Your task to perform on an android device: Go to display settings Image 0: 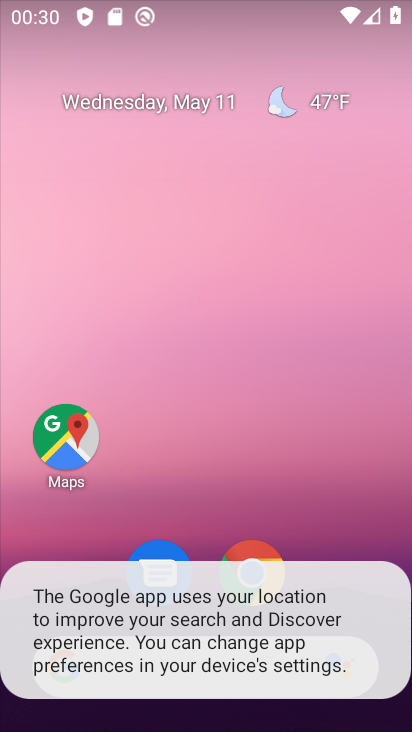
Step 0: press home button
Your task to perform on an android device: Go to display settings Image 1: 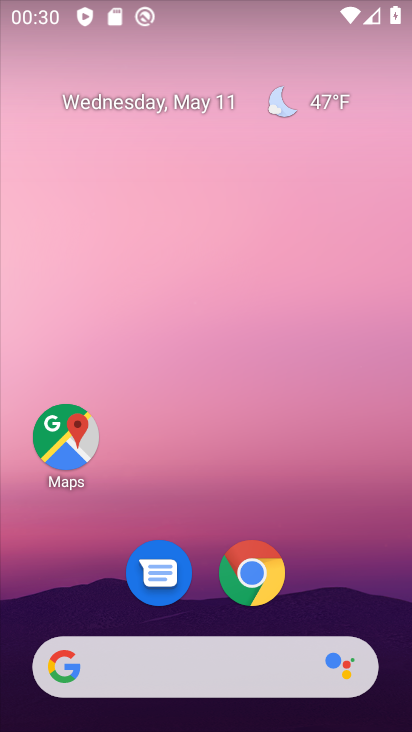
Step 1: drag from (359, 614) to (408, 167)
Your task to perform on an android device: Go to display settings Image 2: 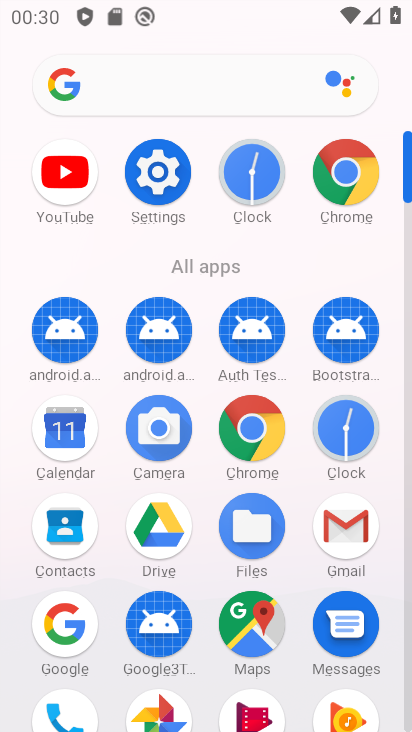
Step 2: click (168, 174)
Your task to perform on an android device: Go to display settings Image 3: 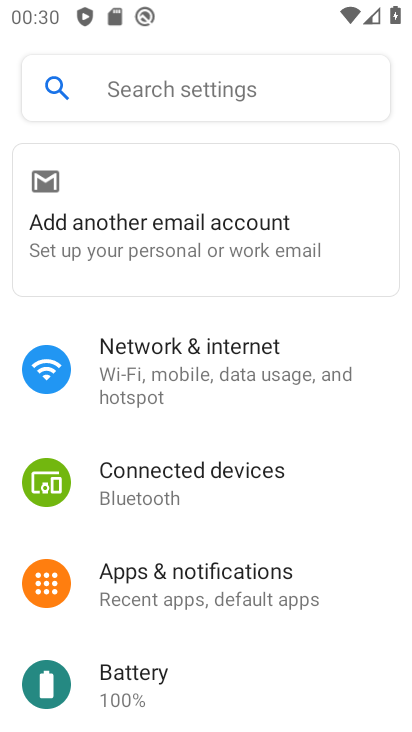
Step 3: drag from (140, 662) to (140, 377)
Your task to perform on an android device: Go to display settings Image 4: 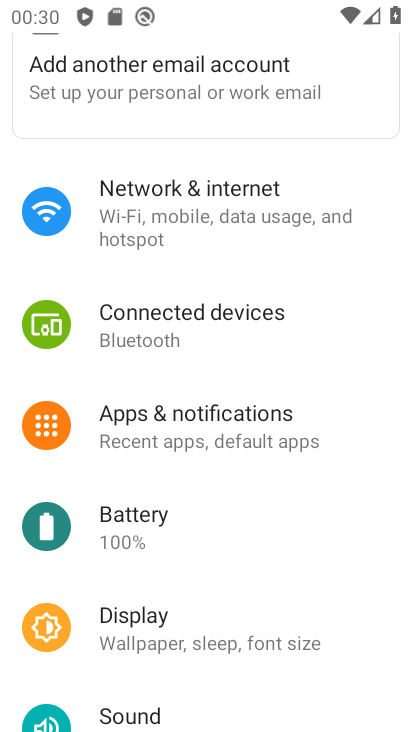
Step 4: click (157, 641)
Your task to perform on an android device: Go to display settings Image 5: 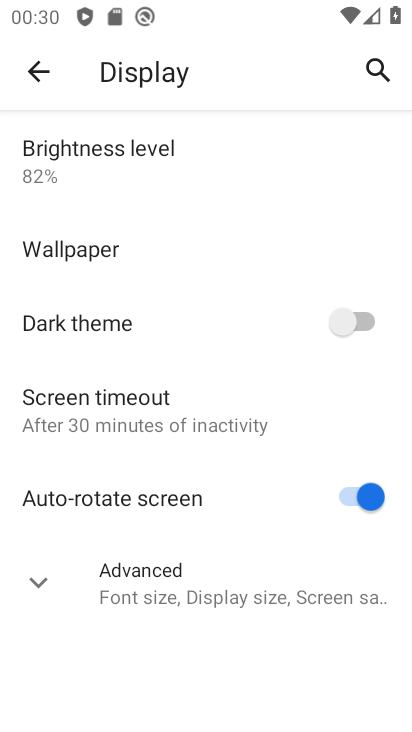
Step 5: task complete